Your task to perform on an android device: make emails show in primary in the gmail app Image 0: 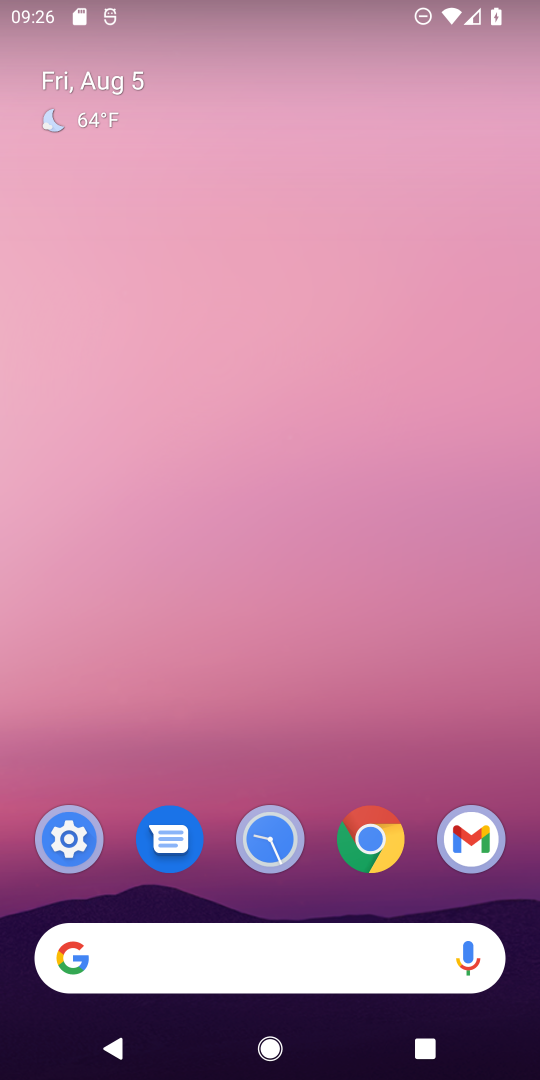
Step 0: drag from (302, 898) to (256, 123)
Your task to perform on an android device: make emails show in primary in the gmail app Image 1: 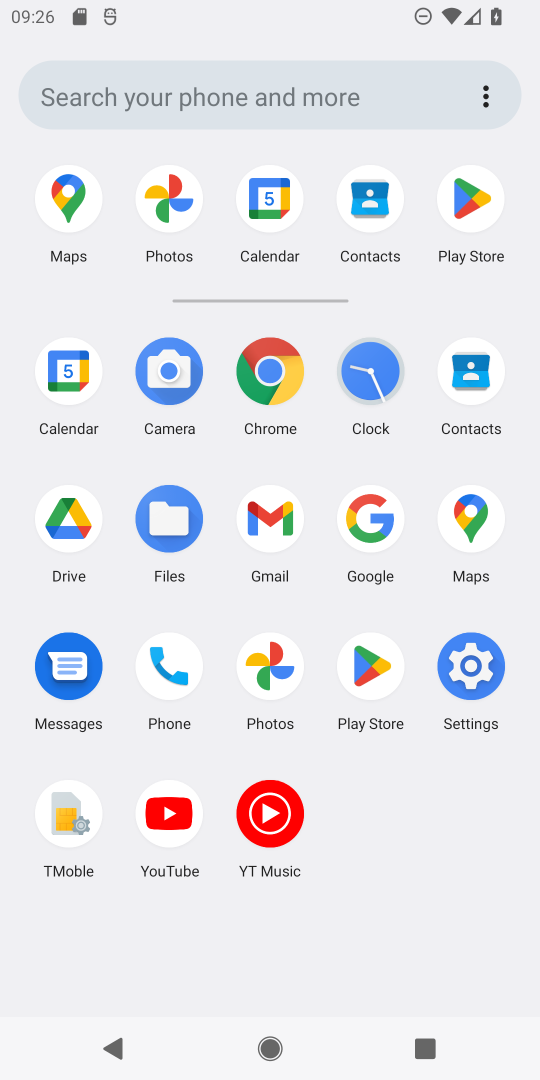
Step 1: click (275, 519)
Your task to perform on an android device: make emails show in primary in the gmail app Image 2: 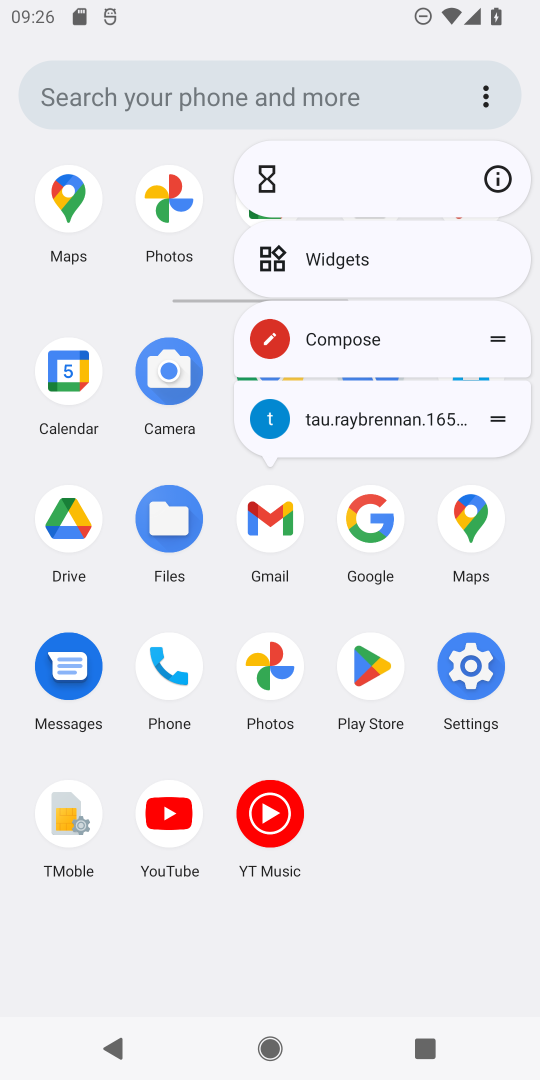
Step 2: click (278, 525)
Your task to perform on an android device: make emails show in primary in the gmail app Image 3: 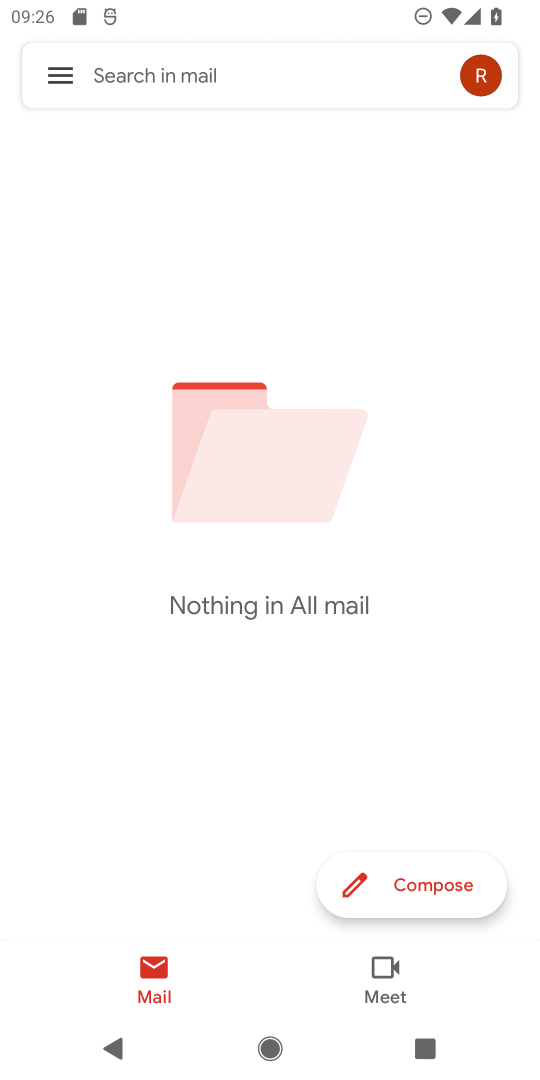
Step 3: click (53, 76)
Your task to perform on an android device: make emails show in primary in the gmail app Image 4: 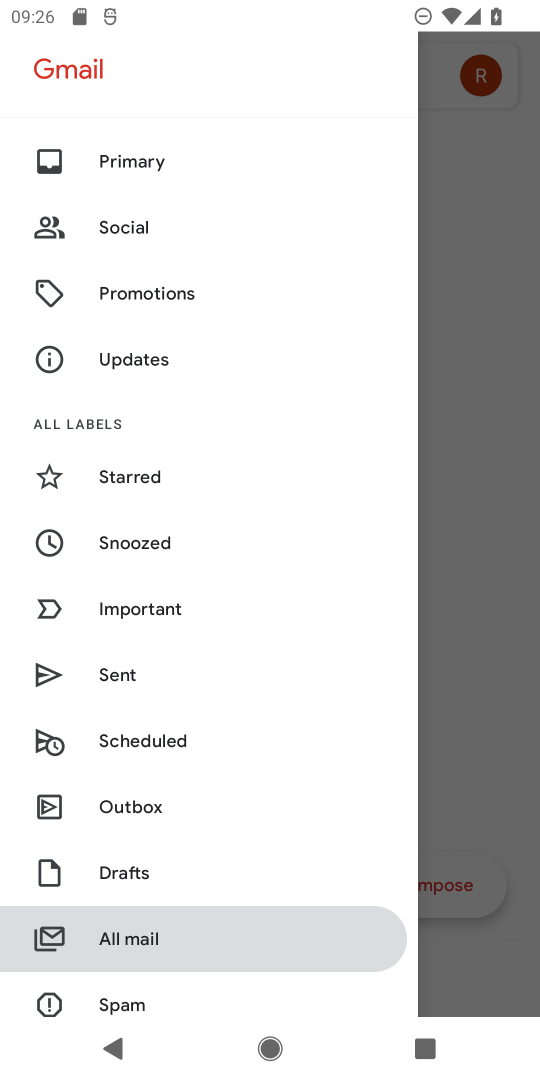
Step 4: drag from (129, 963) to (131, 440)
Your task to perform on an android device: make emails show in primary in the gmail app Image 5: 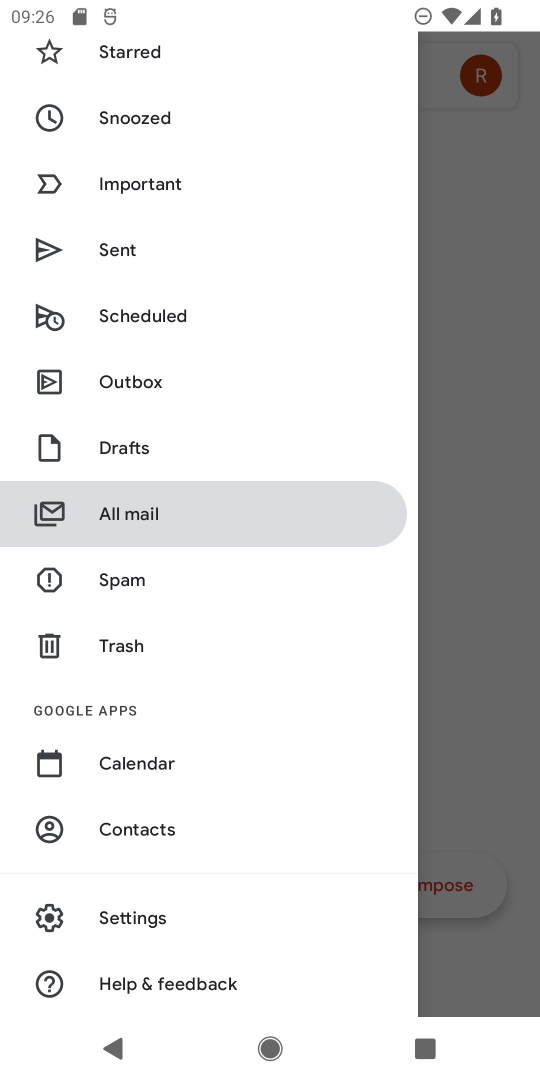
Step 5: click (154, 919)
Your task to perform on an android device: make emails show in primary in the gmail app Image 6: 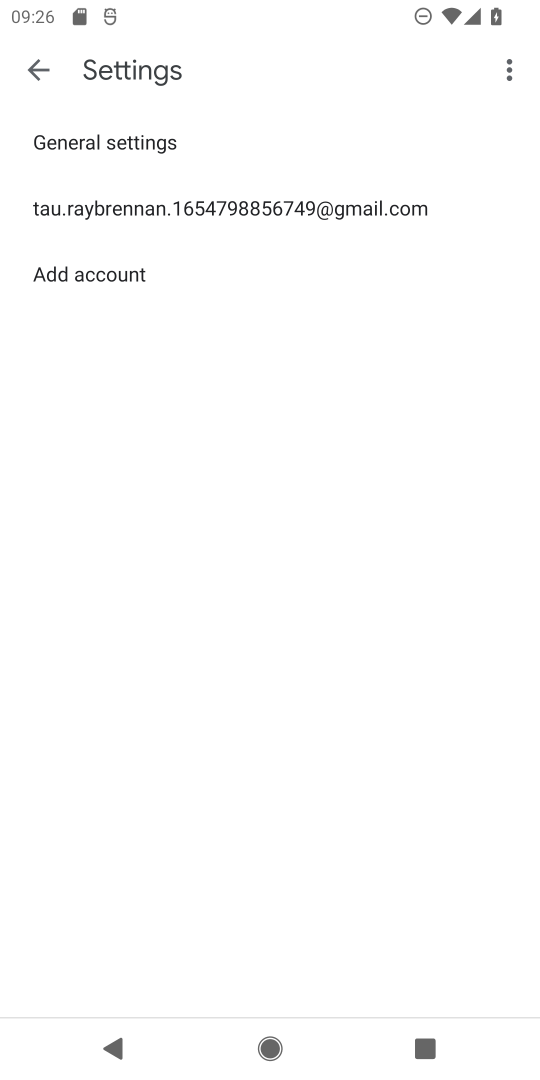
Step 6: click (124, 203)
Your task to perform on an android device: make emails show in primary in the gmail app Image 7: 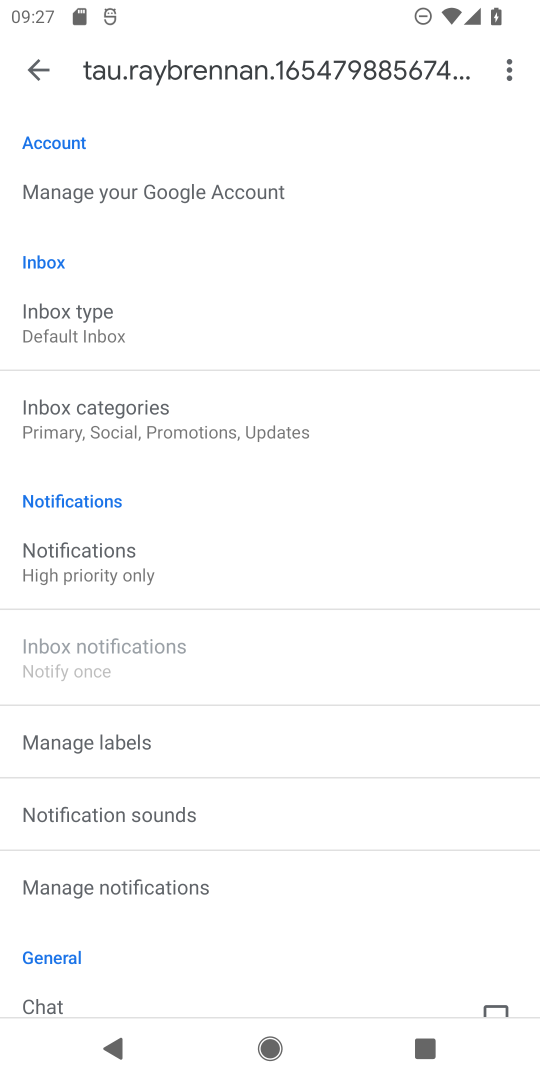
Step 7: click (70, 416)
Your task to perform on an android device: make emails show in primary in the gmail app Image 8: 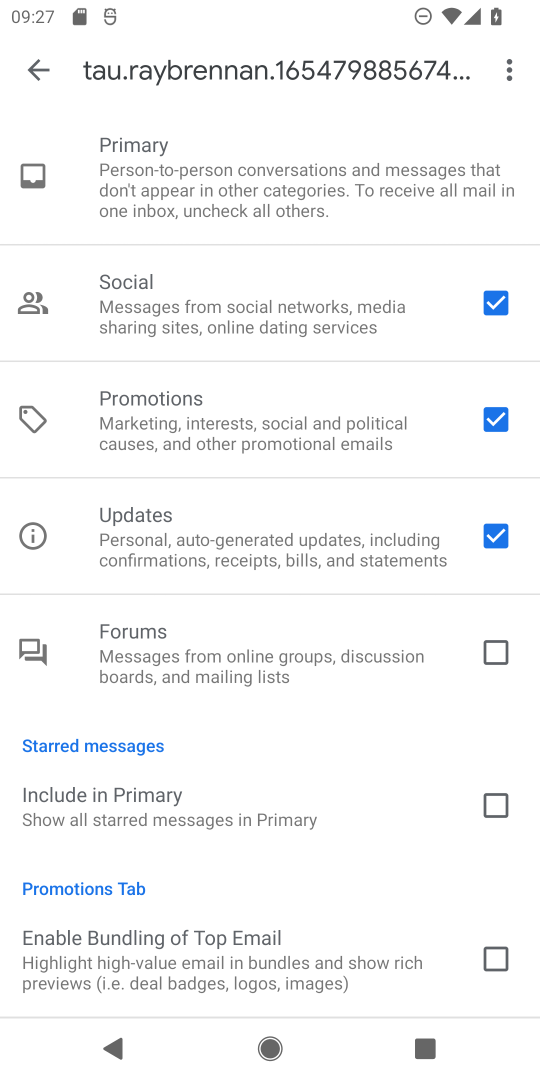
Step 8: click (491, 536)
Your task to perform on an android device: make emails show in primary in the gmail app Image 9: 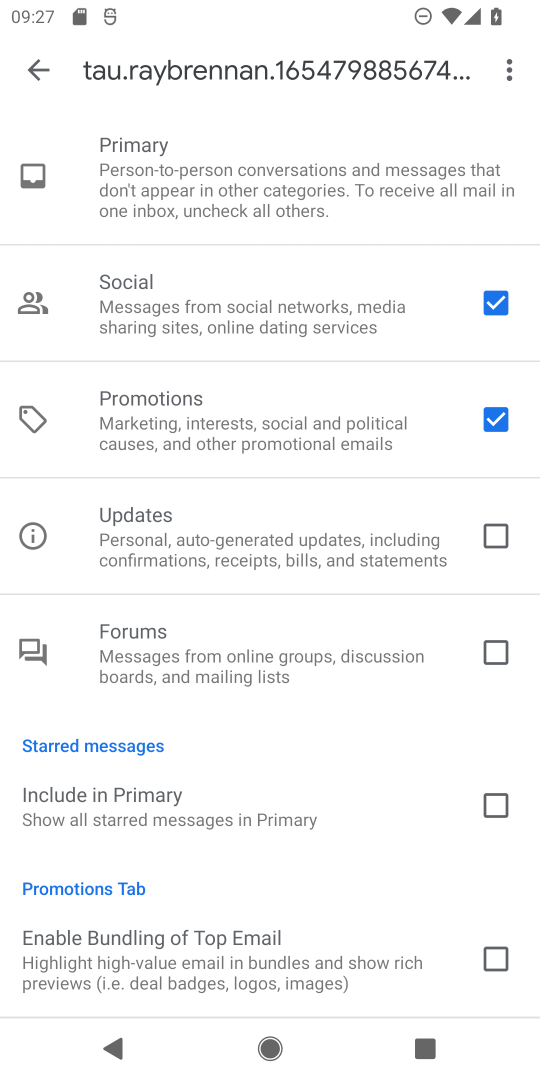
Step 9: click (487, 426)
Your task to perform on an android device: make emails show in primary in the gmail app Image 10: 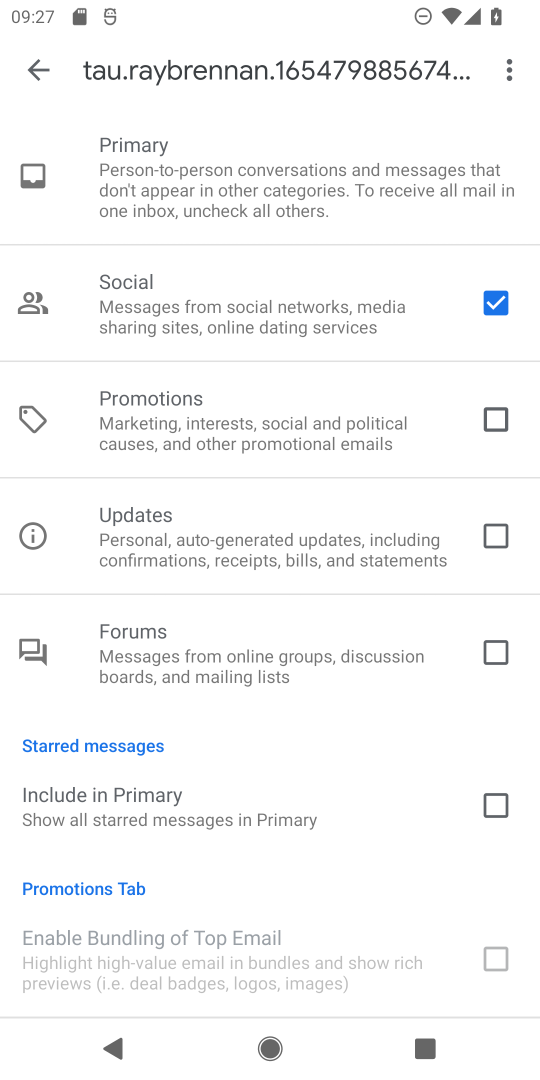
Step 10: click (489, 298)
Your task to perform on an android device: make emails show in primary in the gmail app Image 11: 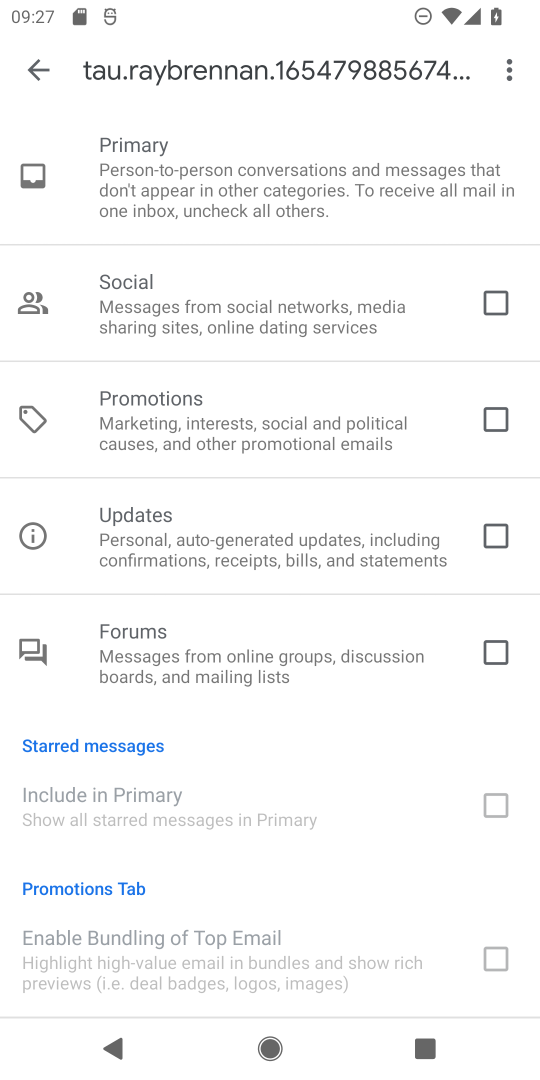
Step 11: click (54, 65)
Your task to perform on an android device: make emails show in primary in the gmail app Image 12: 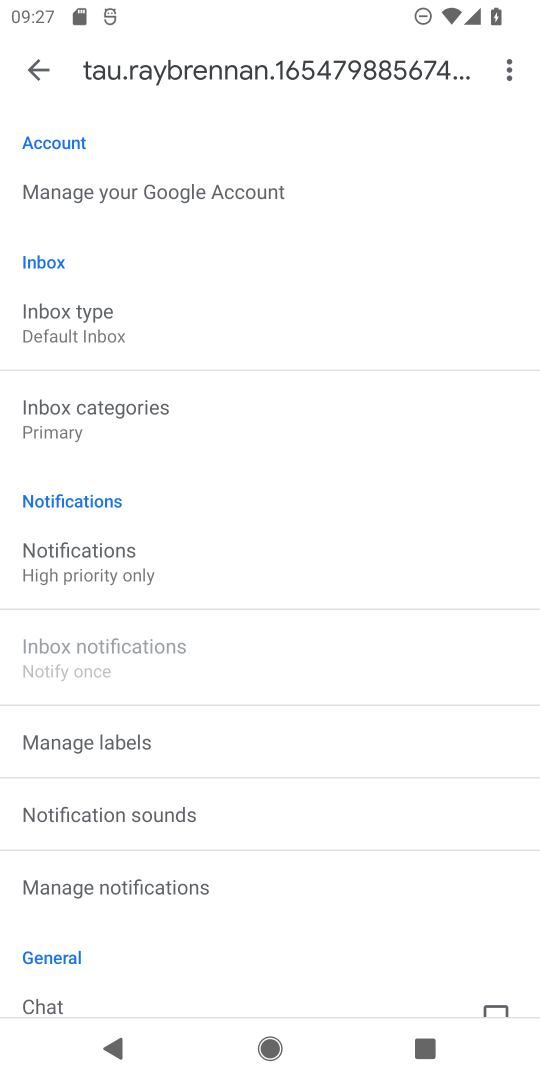
Step 12: task complete